Your task to perform on an android device: Turn on the flashlight Image 0: 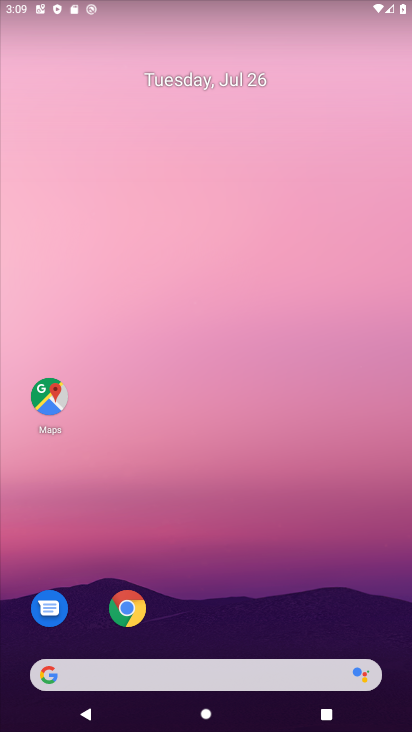
Step 0: task impossible